Your task to perform on an android device: How much does the HisenseTV cost? Image 0: 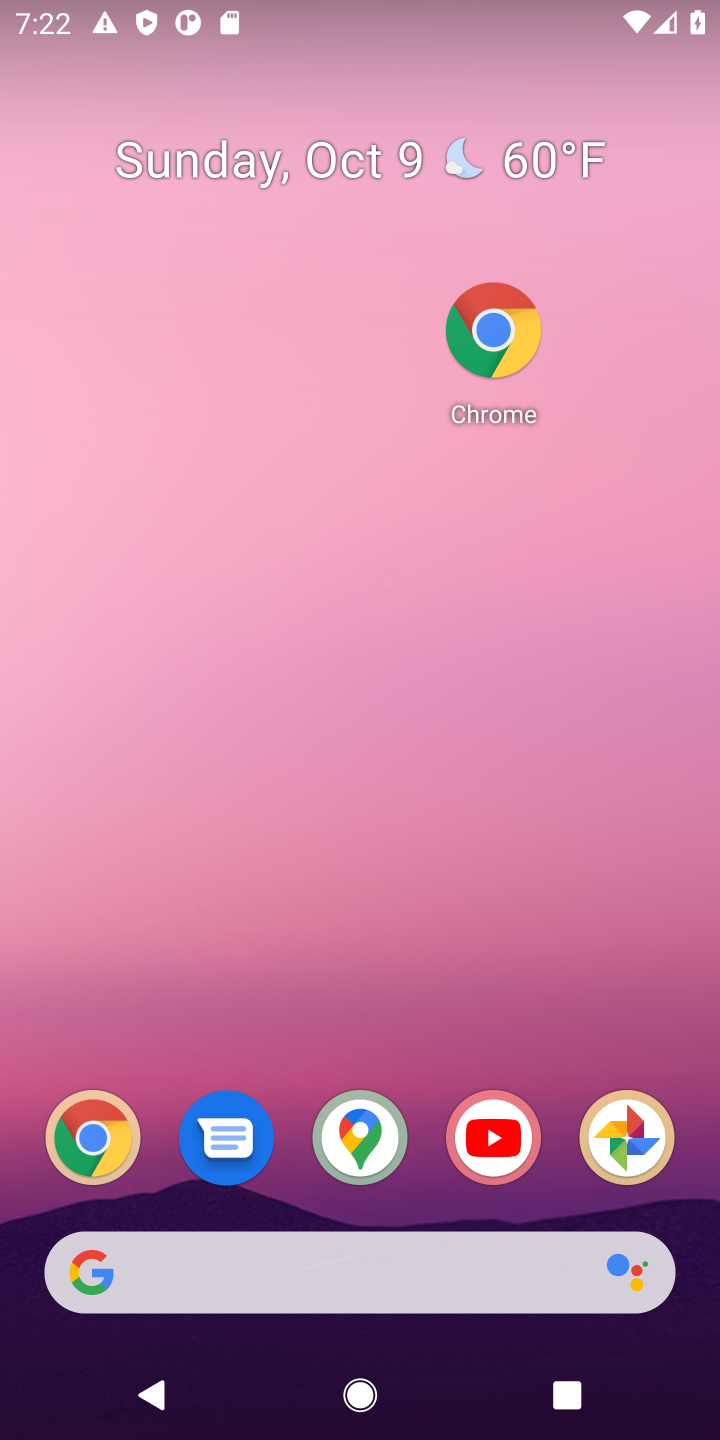
Step 0: click (489, 350)
Your task to perform on an android device: How much does the HisenseTV cost? Image 1: 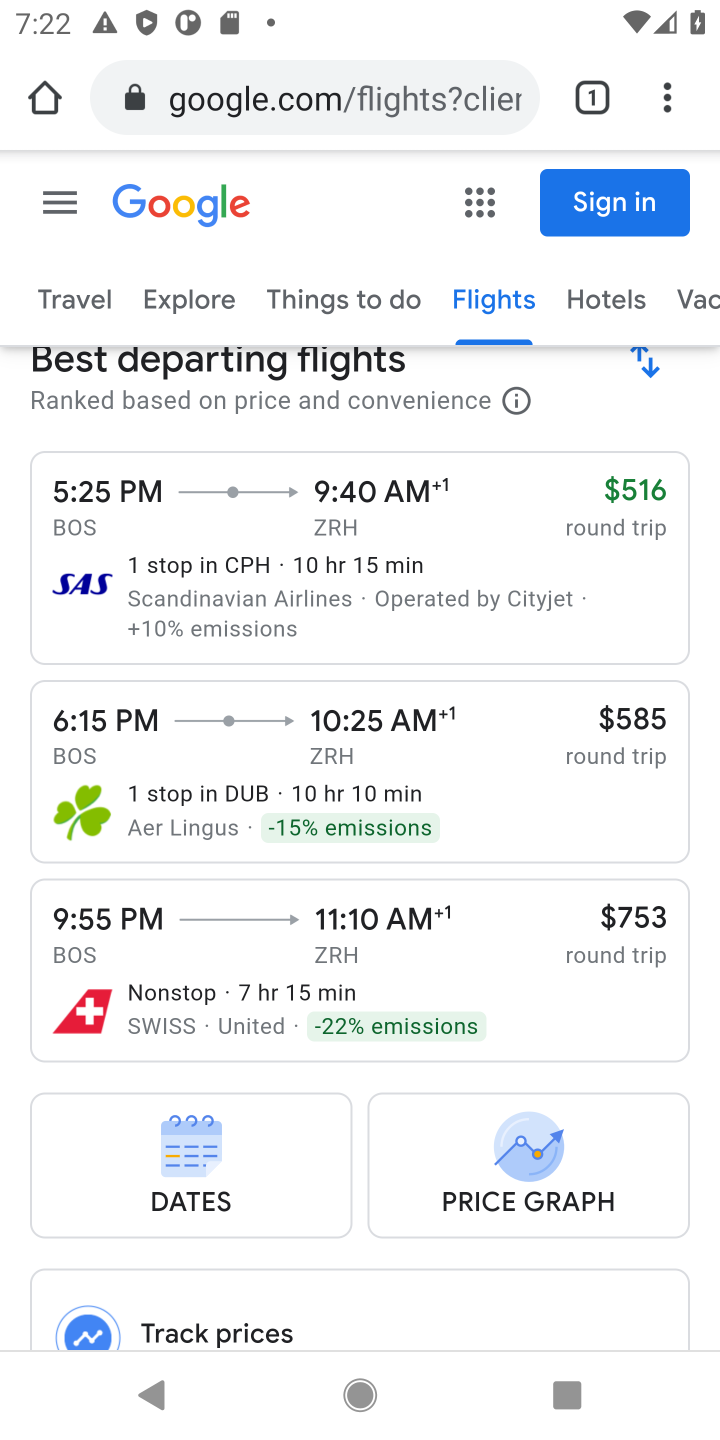
Step 1: click (268, 99)
Your task to perform on an android device: How much does the HisenseTV cost? Image 2: 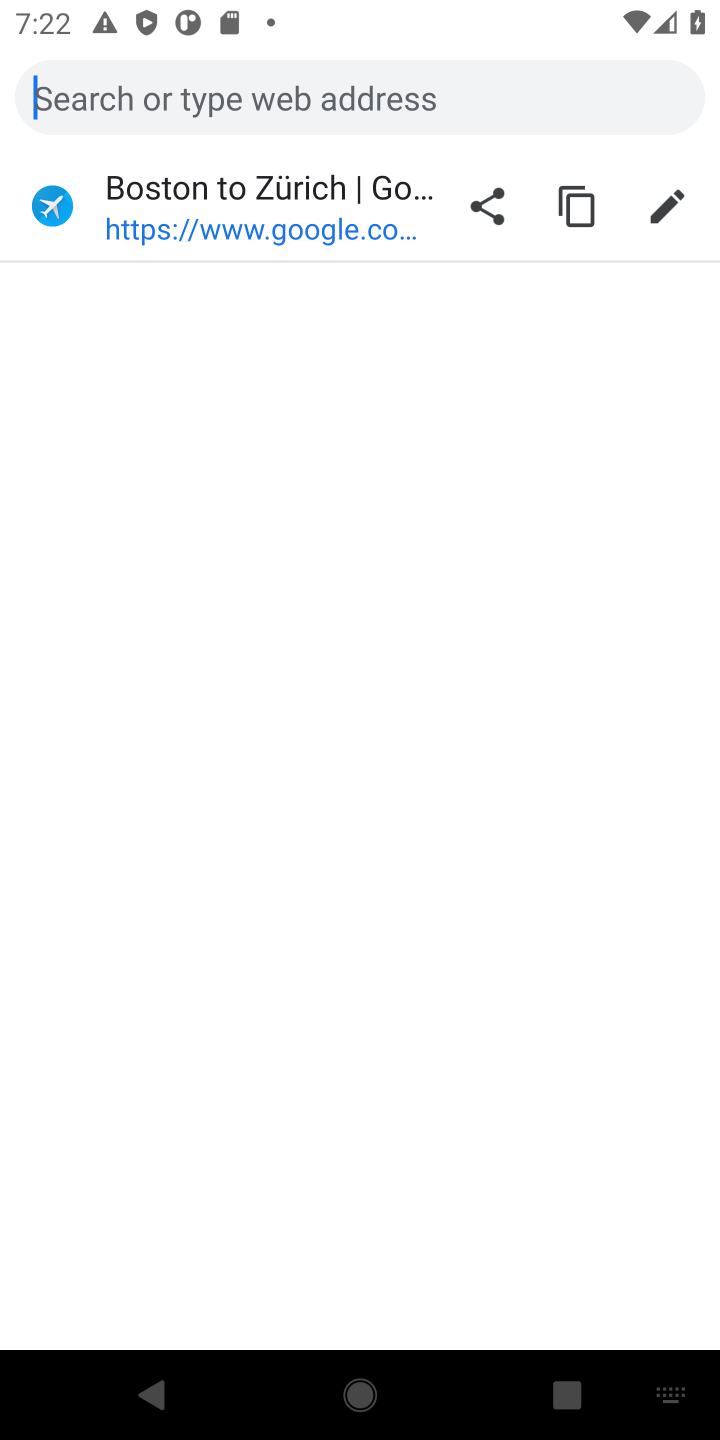
Step 2: type "HisenseTV cost"
Your task to perform on an android device: How much does the HisenseTV cost? Image 3: 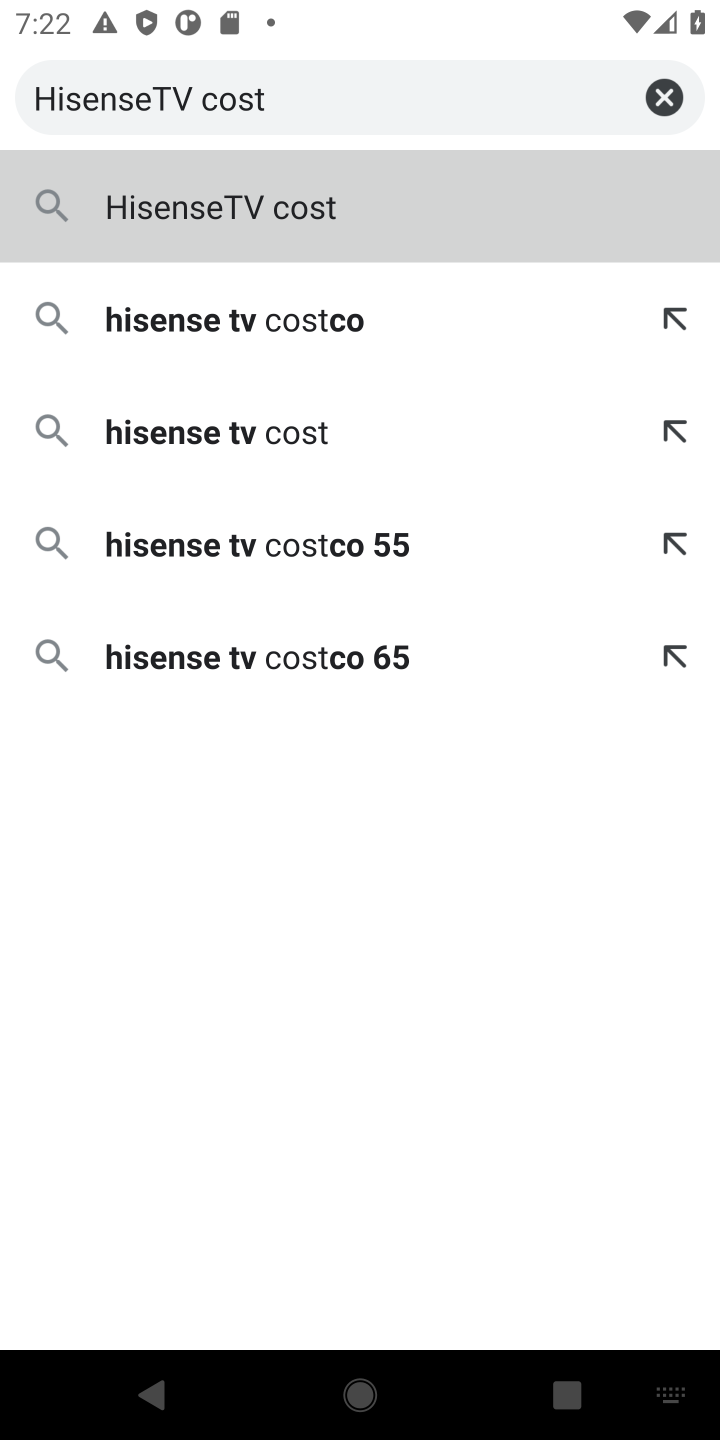
Step 3: click (324, 432)
Your task to perform on an android device: How much does the HisenseTV cost? Image 4: 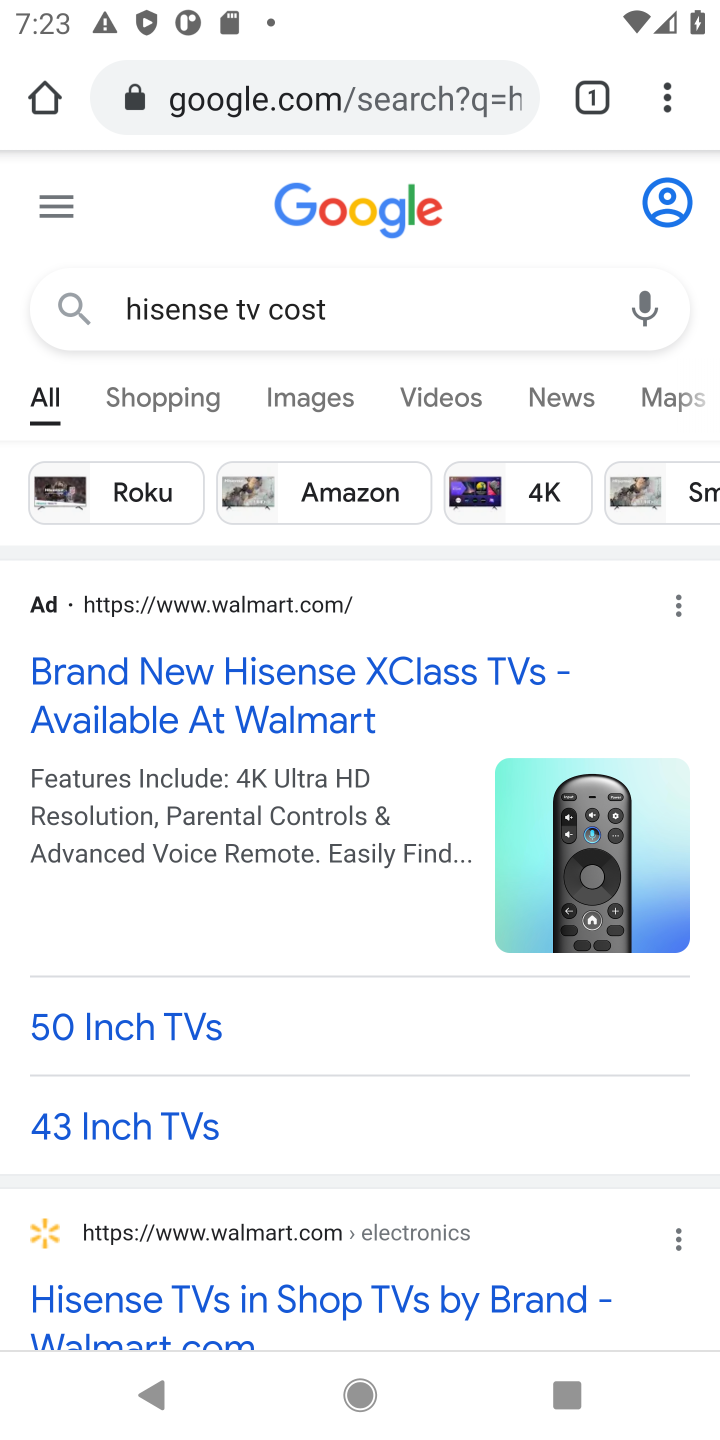
Step 4: click (237, 681)
Your task to perform on an android device: How much does the HisenseTV cost? Image 5: 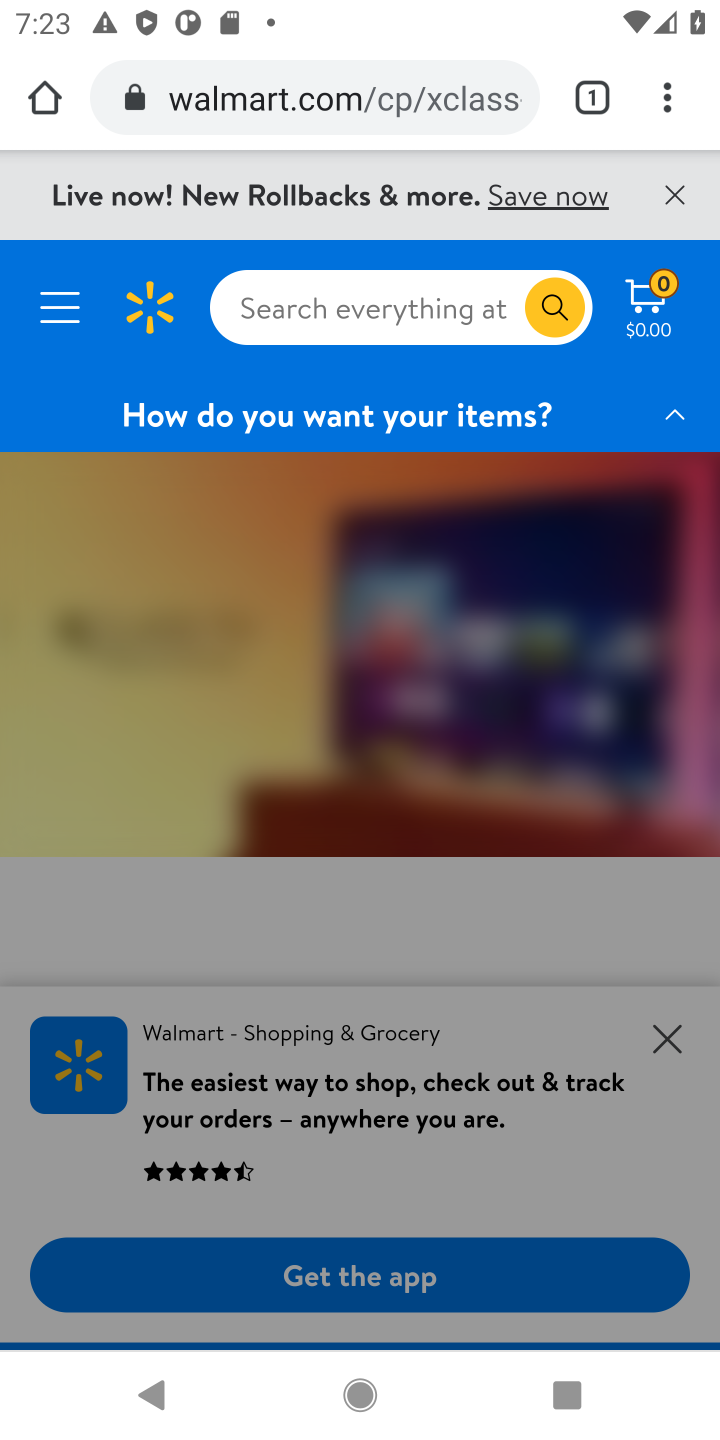
Step 5: click (662, 1051)
Your task to perform on an android device: How much does the HisenseTV cost? Image 6: 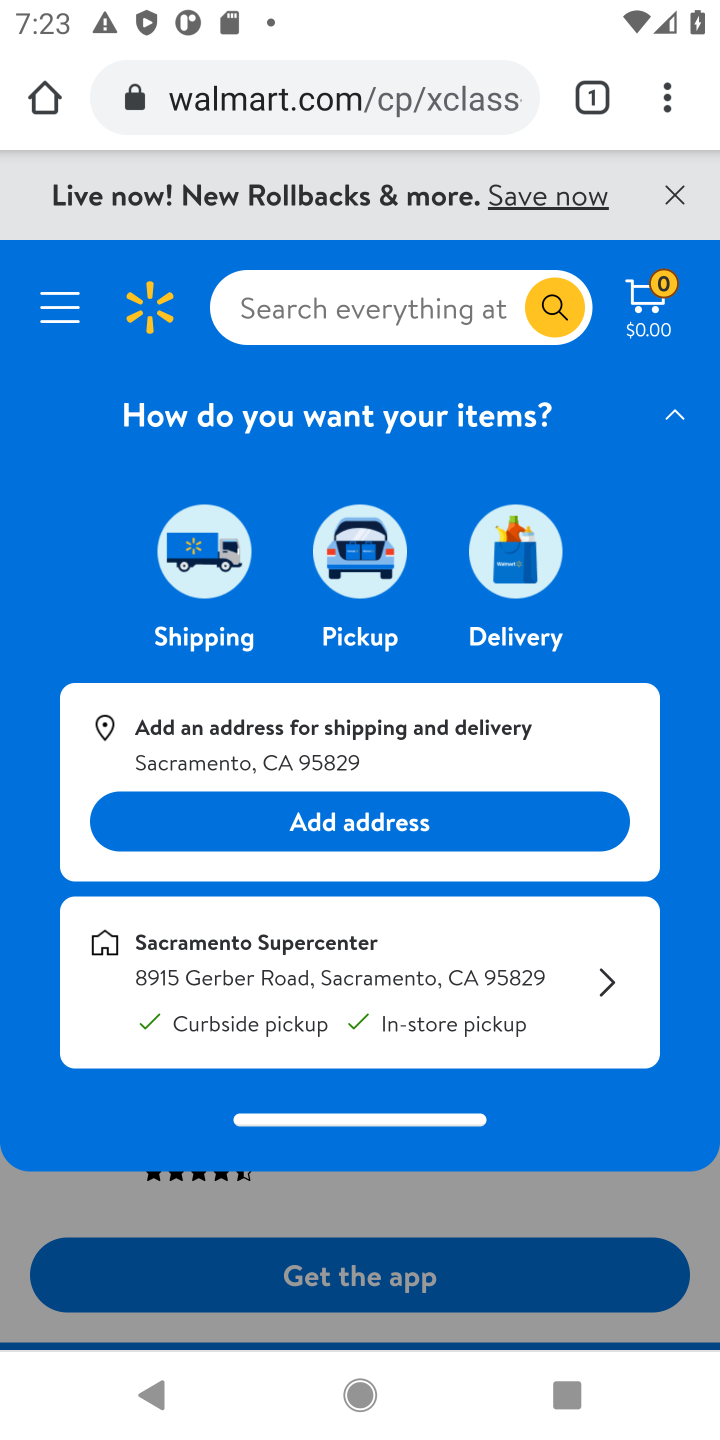
Step 6: click (680, 421)
Your task to perform on an android device: How much does the HisenseTV cost? Image 7: 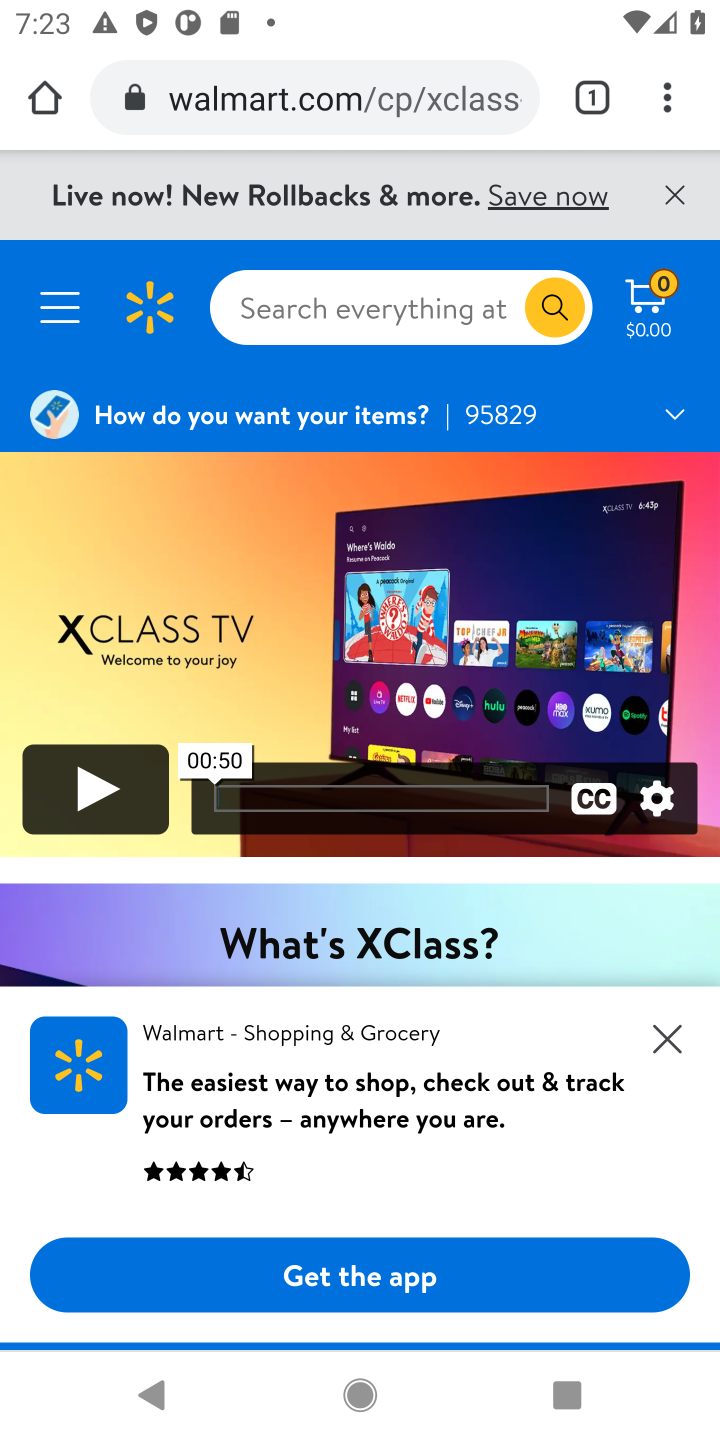
Step 7: click (673, 1038)
Your task to perform on an android device: How much does the HisenseTV cost? Image 8: 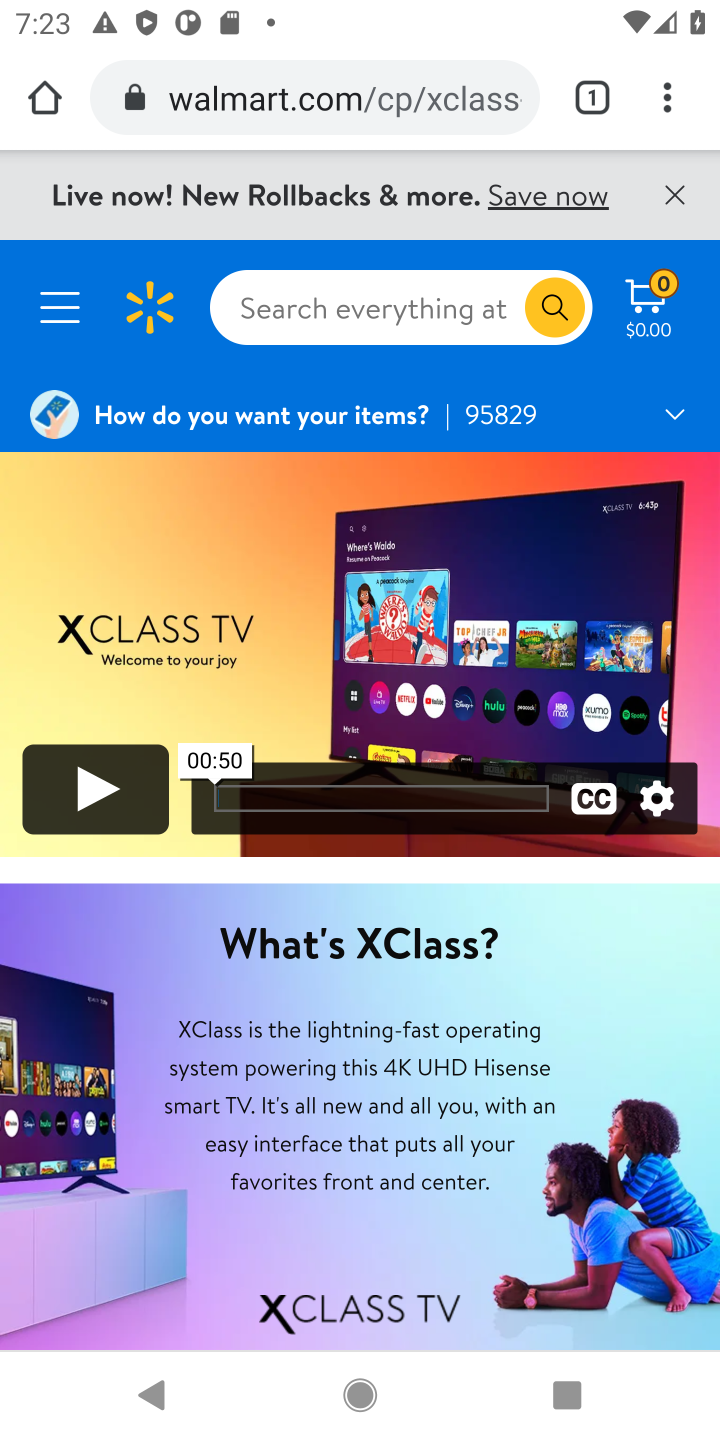
Step 8: task complete